Your task to perform on an android device: turn off data saver in the chrome app Image 0: 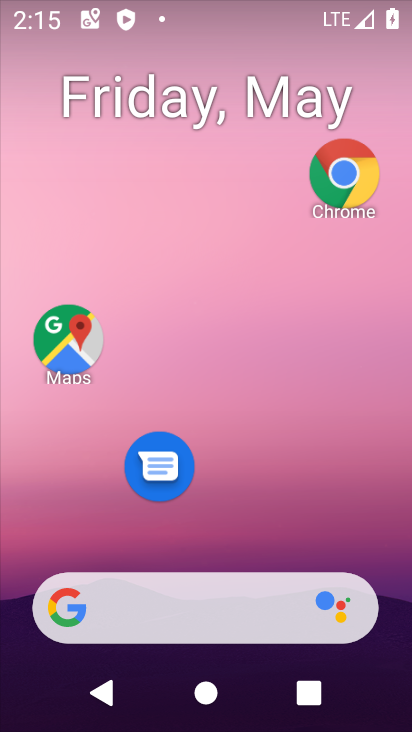
Step 0: drag from (217, 533) to (198, 5)
Your task to perform on an android device: turn off data saver in the chrome app Image 1: 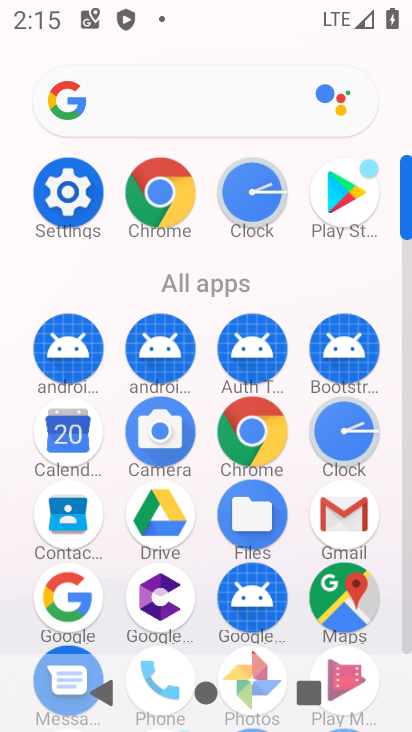
Step 1: click (243, 438)
Your task to perform on an android device: turn off data saver in the chrome app Image 2: 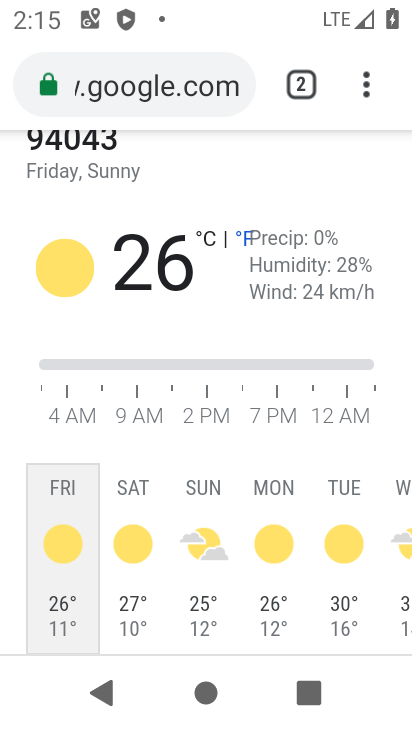
Step 2: drag from (365, 79) to (143, 509)
Your task to perform on an android device: turn off data saver in the chrome app Image 3: 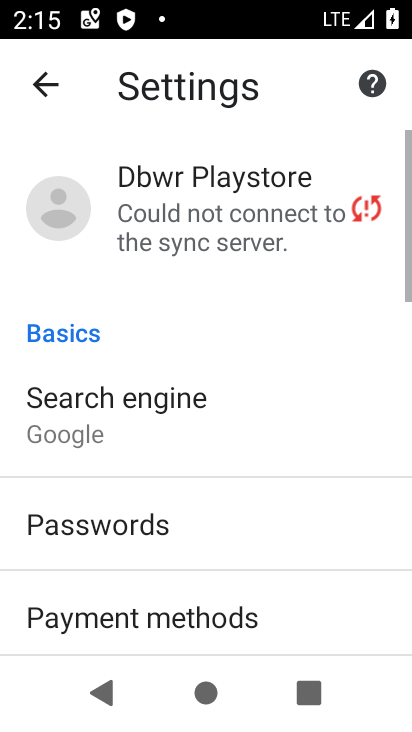
Step 3: drag from (221, 543) to (209, 203)
Your task to perform on an android device: turn off data saver in the chrome app Image 4: 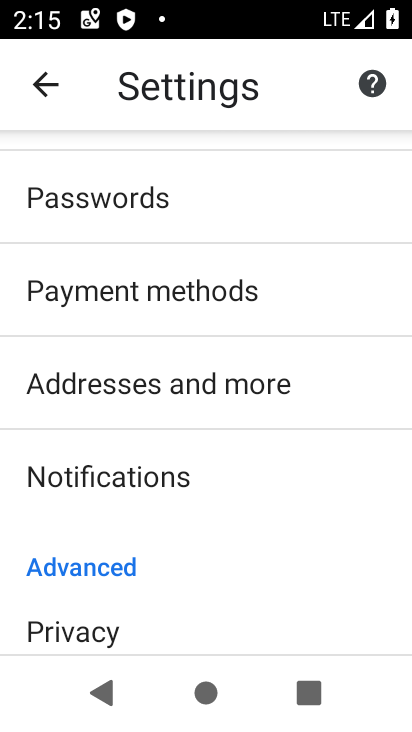
Step 4: drag from (234, 605) to (210, 383)
Your task to perform on an android device: turn off data saver in the chrome app Image 5: 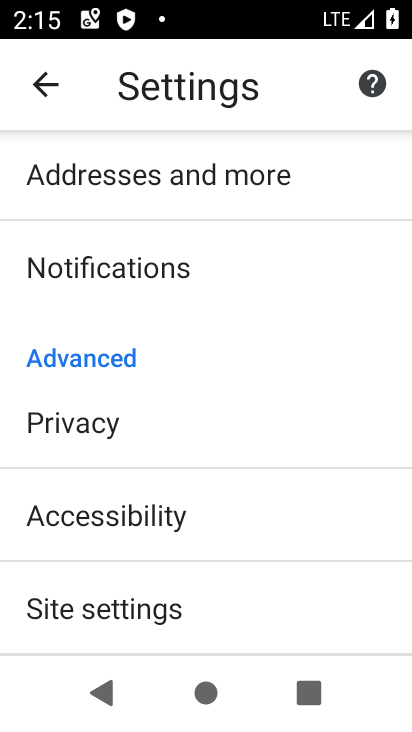
Step 5: drag from (226, 552) to (218, 216)
Your task to perform on an android device: turn off data saver in the chrome app Image 6: 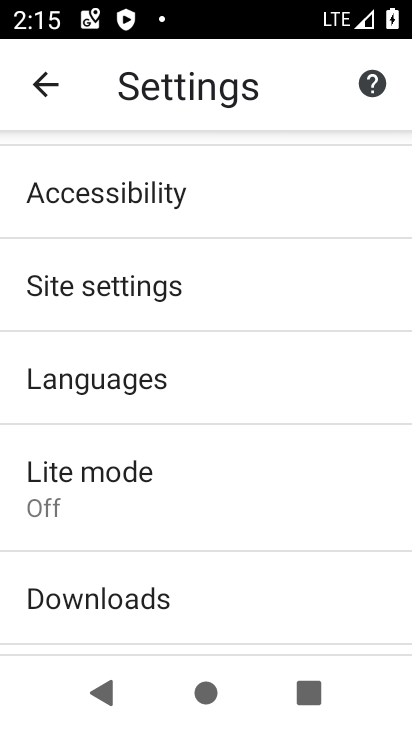
Step 6: click (134, 472)
Your task to perform on an android device: turn off data saver in the chrome app Image 7: 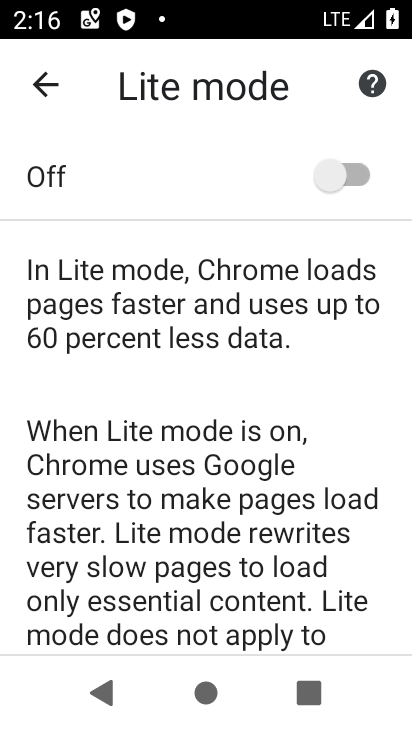
Step 7: task complete